Your task to perform on an android device: Open the Play Movies app and select the watchlist tab. Image 0: 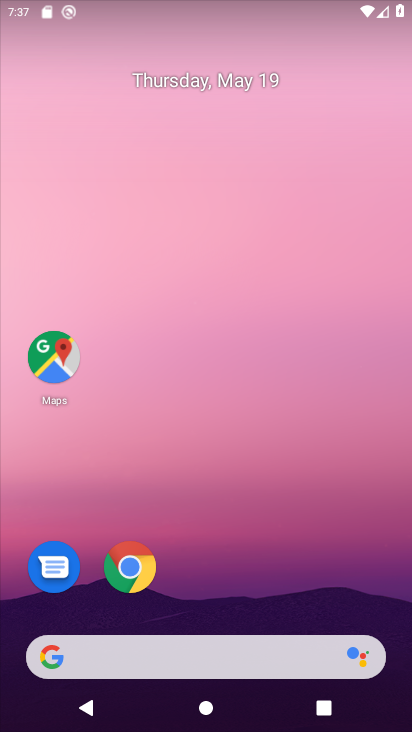
Step 0: drag from (286, 661) to (307, 0)
Your task to perform on an android device: Open the Play Movies app and select the watchlist tab. Image 1: 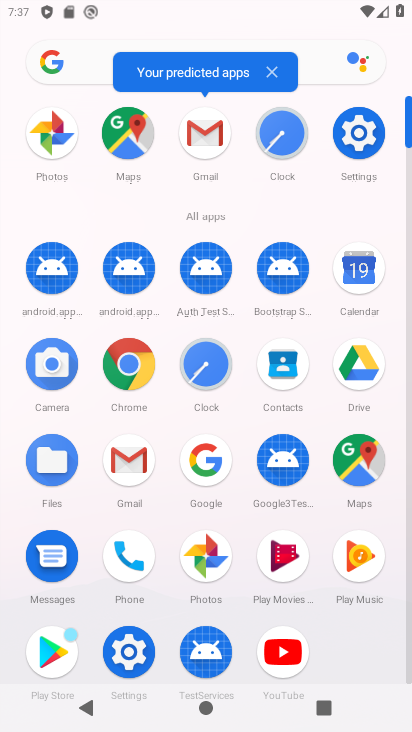
Step 1: click (293, 549)
Your task to perform on an android device: Open the Play Movies app and select the watchlist tab. Image 2: 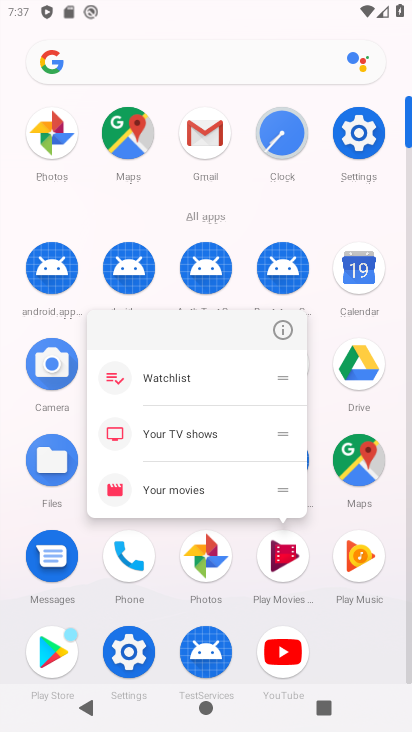
Step 2: click (276, 578)
Your task to perform on an android device: Open the Play Movies app and select the watchlist tab. Image 3: 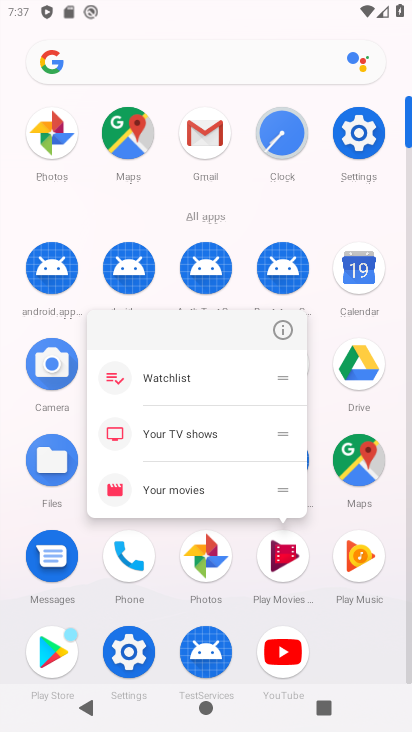
Step 3: click (276, 578)
Your task to perform on an android device: Open the Play Movies app and select the watchlist tab. Image 4: 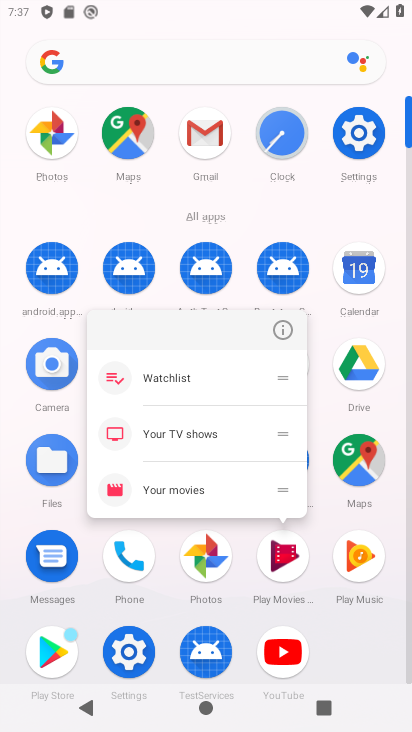
Step 4: click (283, 554)
Your task to perform on an android device: Open the Play Movies app and select the watchlist tab. Image 5: 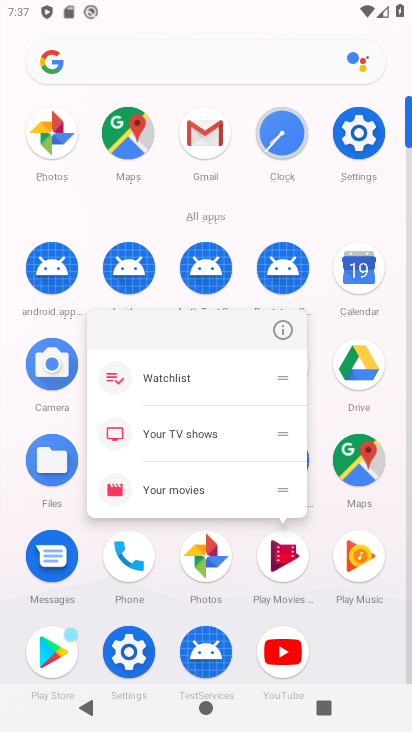
Step 5: click (283, 554)
Your task to perform on an android device: Open the Play Movies app and select the watchlist tab. Image 6: 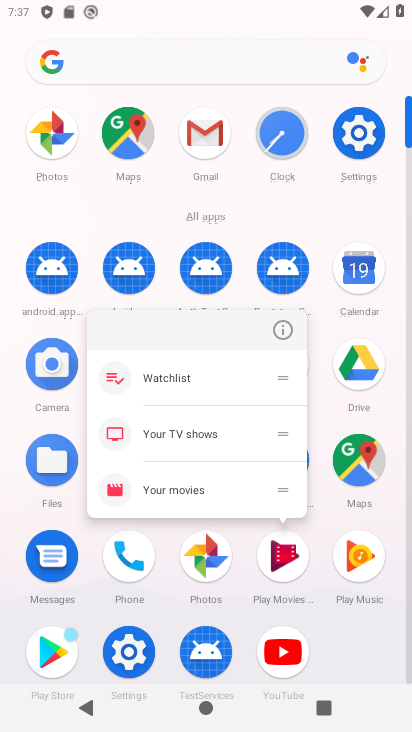
Step 6: click (283, 554)
Your task to perform on an android device: Open the Play Movies app and select the watchlist tab. Image 7: 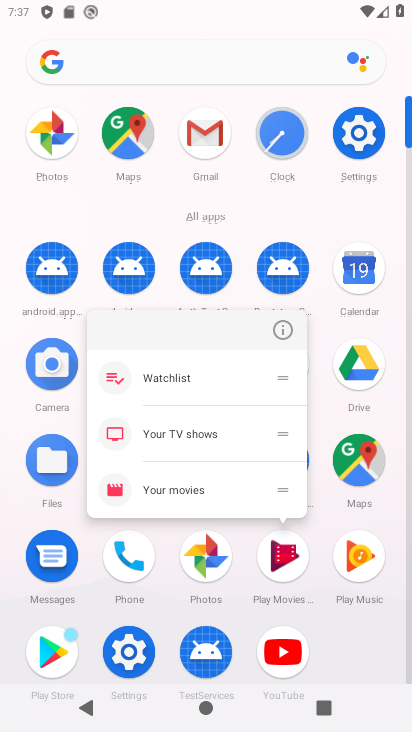
Step 7: click (283, 554)
Your task to perform on an android device: Open the Play Movies app and select the watchlist tab. Image 8: 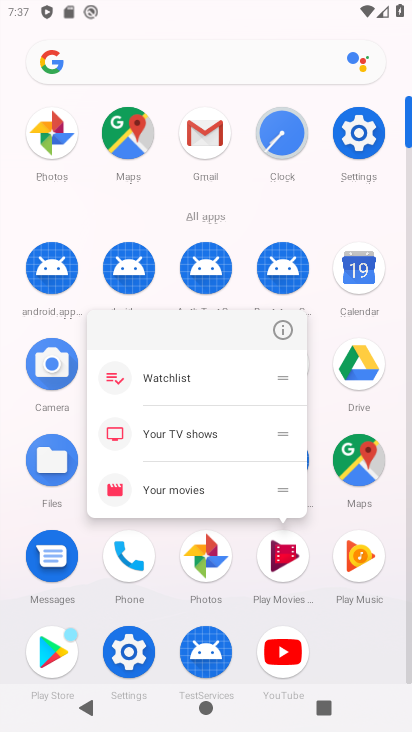
Step 8: click (283, 554)
Your task to perform on an android device: Open the Play Movies app and select the watchlist tab. Image 9: 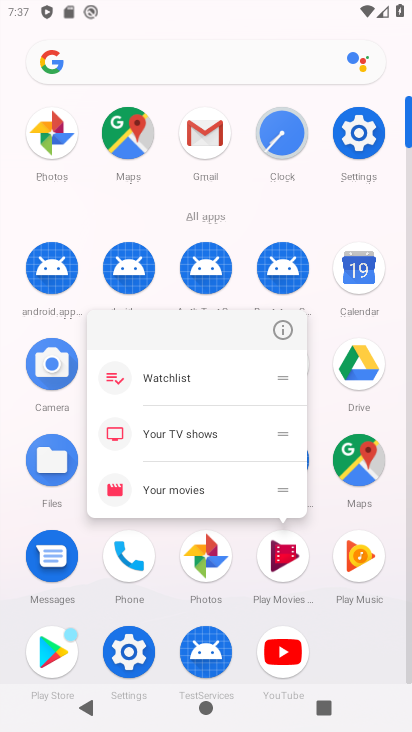
Step 9: click (283, 554)
Your task to perform on an android device: Open the Play Movies app and select the watchlist tab. Image 10: 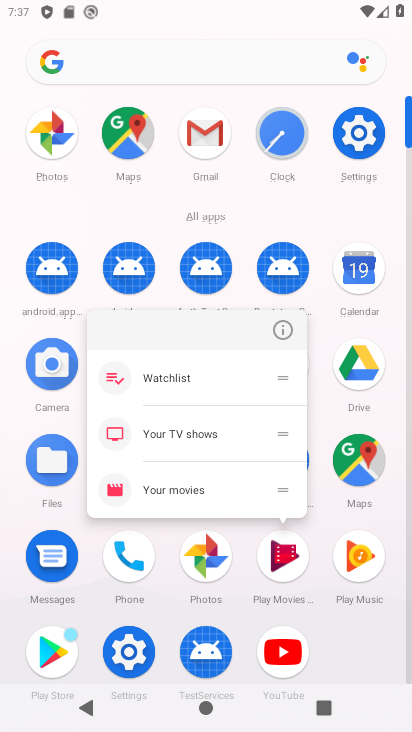
Step 10: click (283, 554)
Your task to perform on an android device: Open the Play Movies app and select the watchlist tab. Image 11: 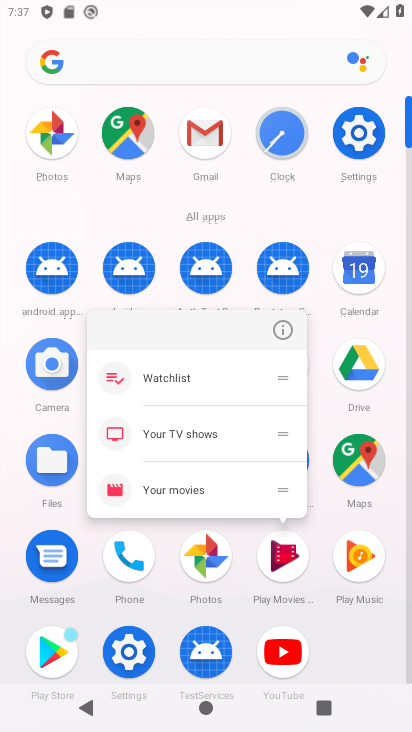
Step 11: click (283, 554)
Your task to perform on an android device: Open the Play Movies app and select the watchlist tab. Image 12: 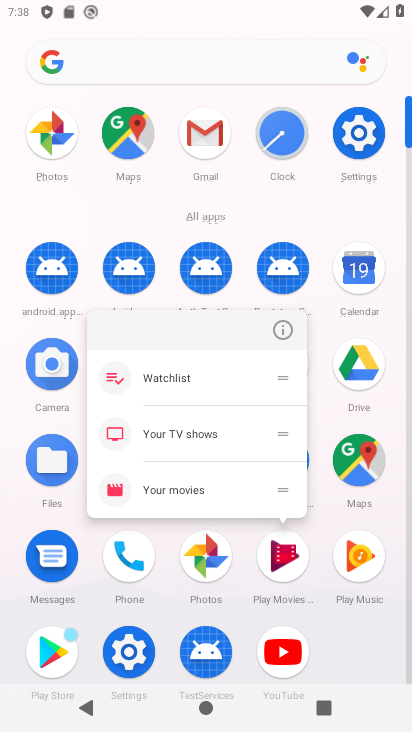
Step 12: click (283, 554)
Your task to perform on an android device: Open the Play Movies app and select the watchlist tab. Image 13: 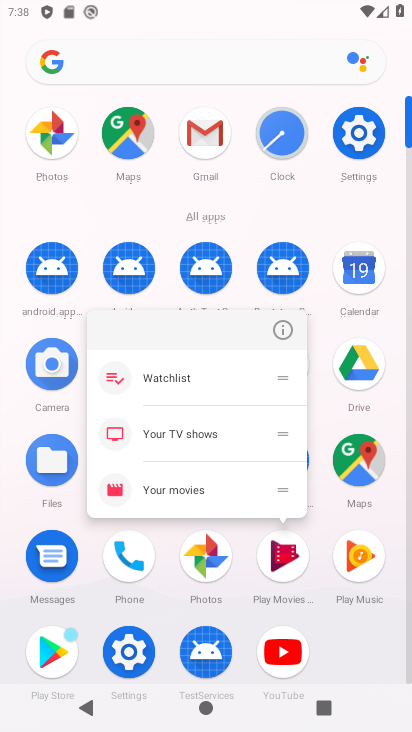
Step 13: click (283, 554)
Your task to perform on an android device: Open the Play Movies app and select the watchlist tab. Image 14: 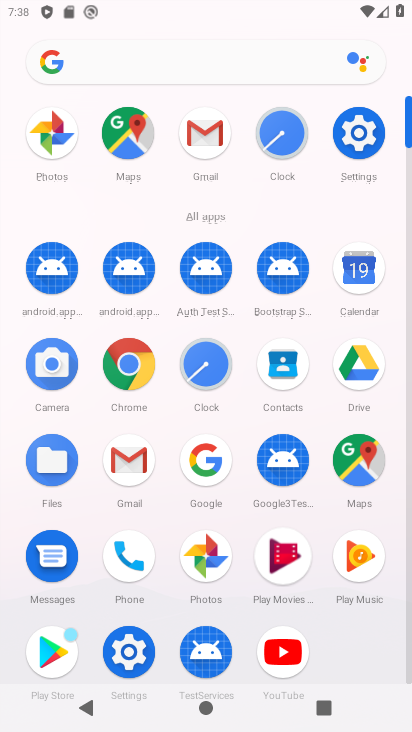
Step 14: click (283, 554)
Your task to perform on an android device: Open the Play Movies app and select the watchlist tab. Image 15: 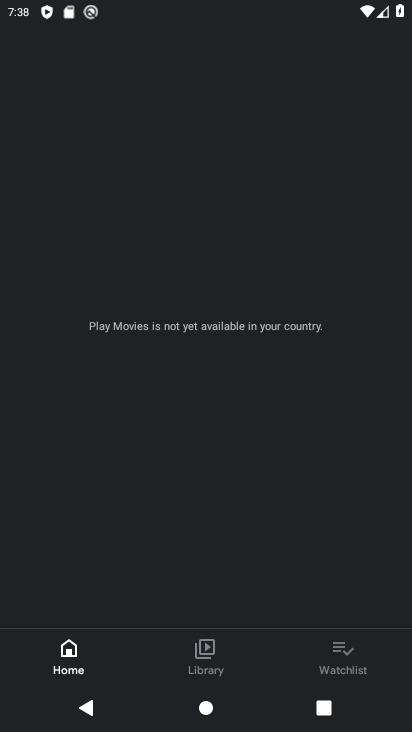
Step 15: click (334, 649)
Your task to perform on an android device: Open the Play Movies app and select the watchlist tab. Image 16: 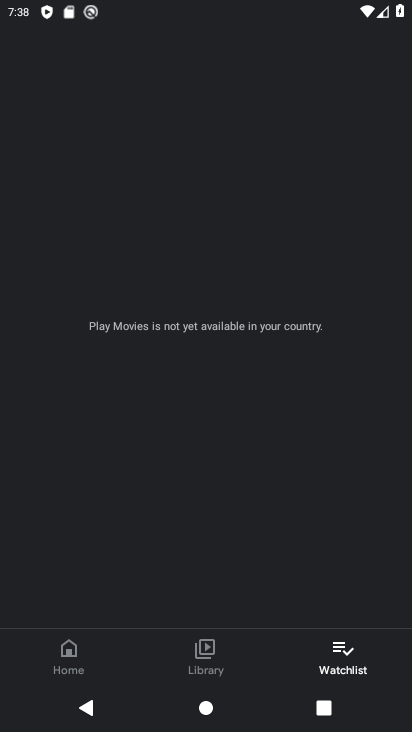
Step 16: task complete